Your task to perform on an android device: change the clock display to digital Image 0: 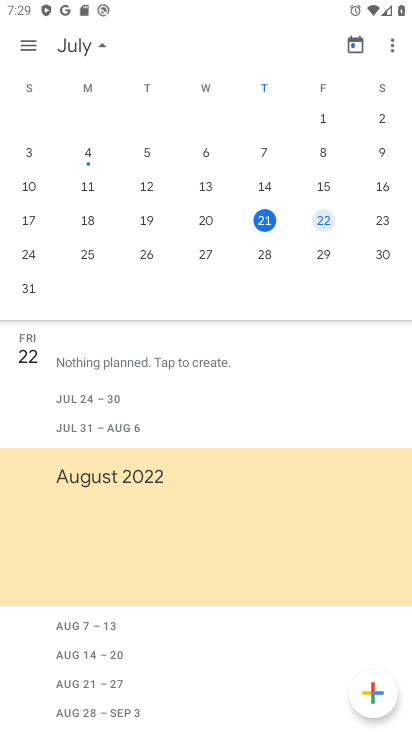
Step 0: task complete